Your task to perform on an android device: change the clock display to show seconds Image 0: 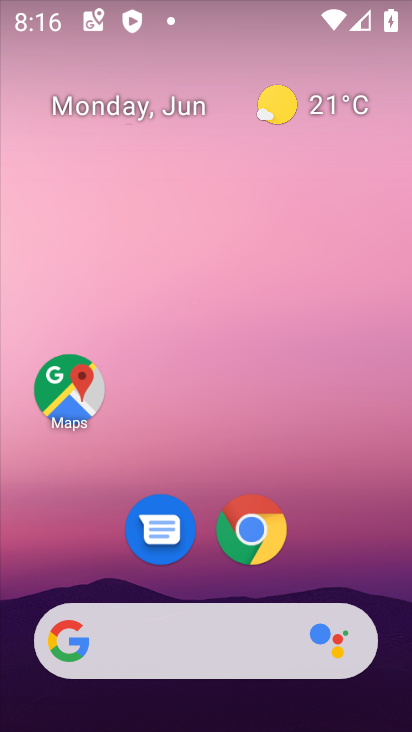
Step 0: drag from (91, 506) to (281, 143)
Your task to perform on an android device: change the clock display to show seconds Image 1: 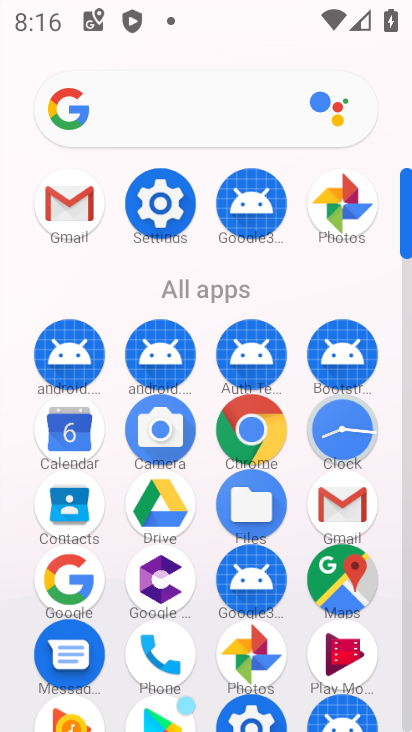
Step 1: click (330, 435)
Your task to perform on an android device: change the clock display to show seconds Image 2: 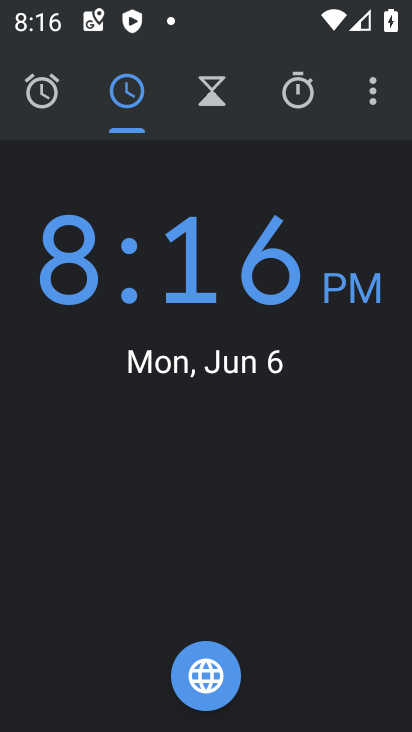
Step 2: click (374, 83)
Your task to perform on an android device: change the clock display to show seconds Image 3: 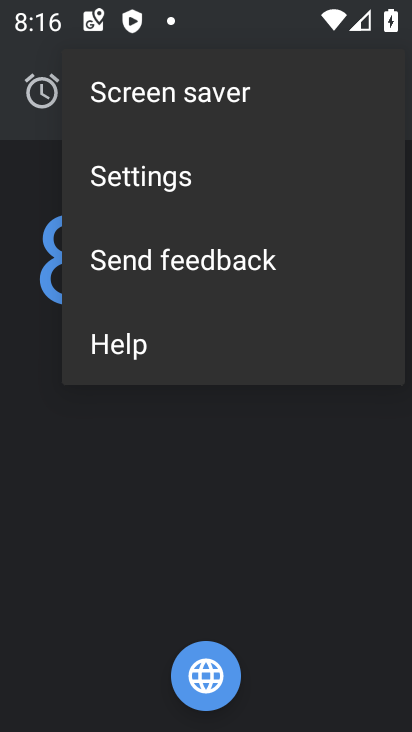
Step 3: click (108, 179)
Your task to perform on an android device: change the clock display to show seconds Image 4: 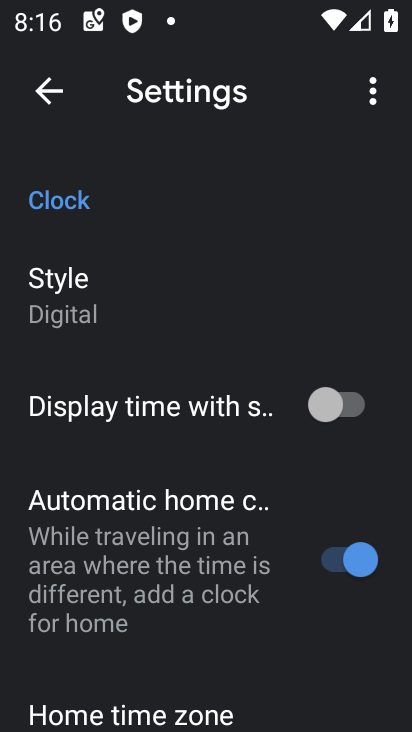
Step 4: click (326, 414)
Your task to perform on an android device: change the clock display to show seconds Image 5: 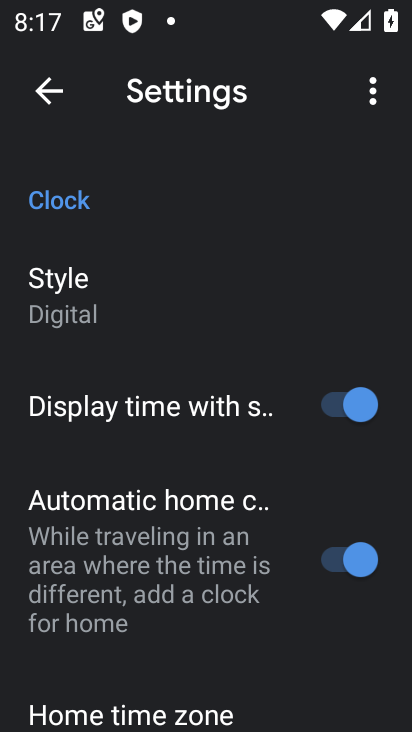
Step 5: task complete